Your task to perform on an android device: remove spam from my inbox in the gmail app Image 0: 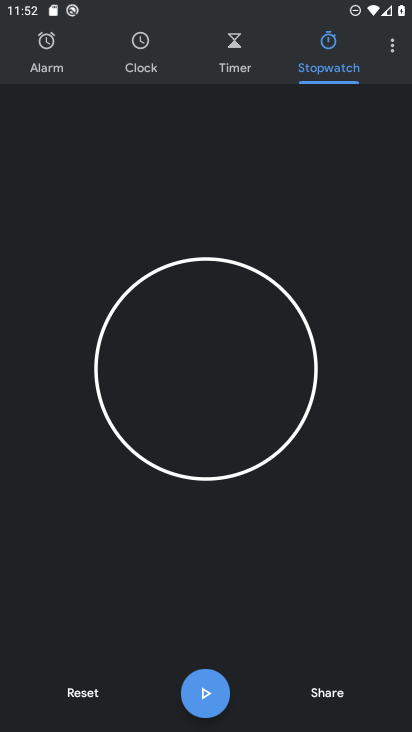
Step 0: press home button
Your task to perform on an android device: remove spam from my inbox in the gmail app Image 1: 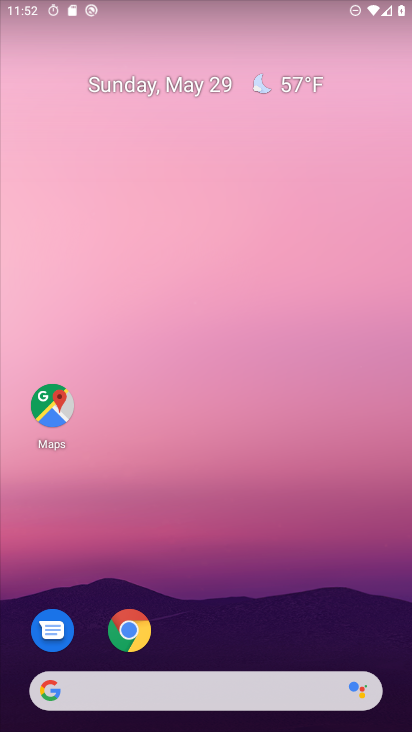
Step 1: drag from (275, 687) to (81, 1)
Your task to perform on an android device: remove spam from my inbox in the gmail app Image 2: 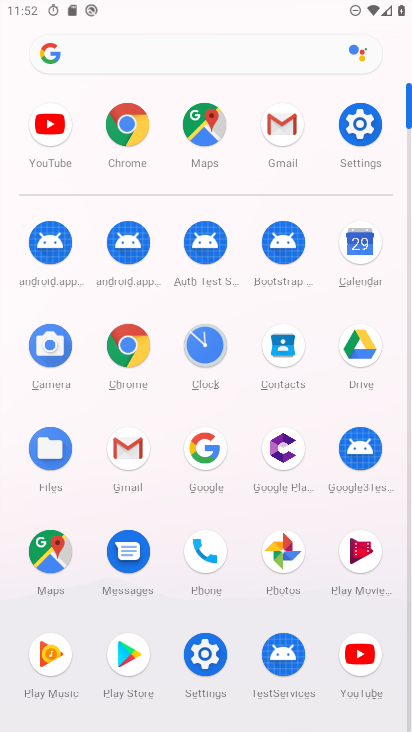
Step 2: click (128, 454)
Your task to perform on an android device: remove spam from my inbox in the gmail app Image 3: 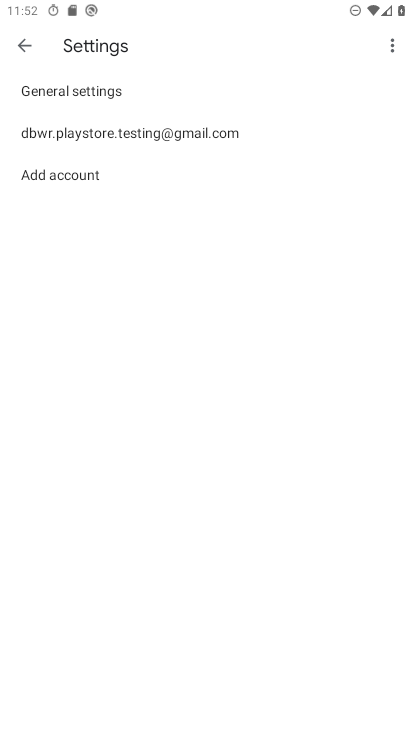
Step 3: click (120, 122)
Your task to perform on an android device: remove spam from my inbox in the gmail app Image 4: 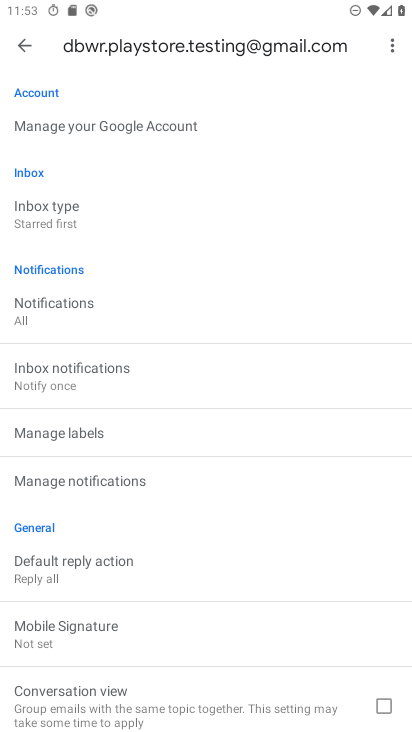
Step 4: click (25, 38)
Your task to perform on an android device: remove spam from my inbox in the gmail app Image 5: 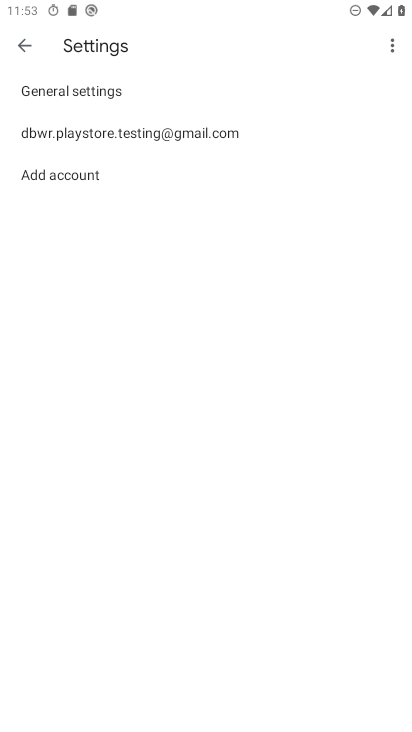
Step 5: click (25, 38)
Your task to perform on an android device: remove spam from my inbox in the gmail app Image 6: 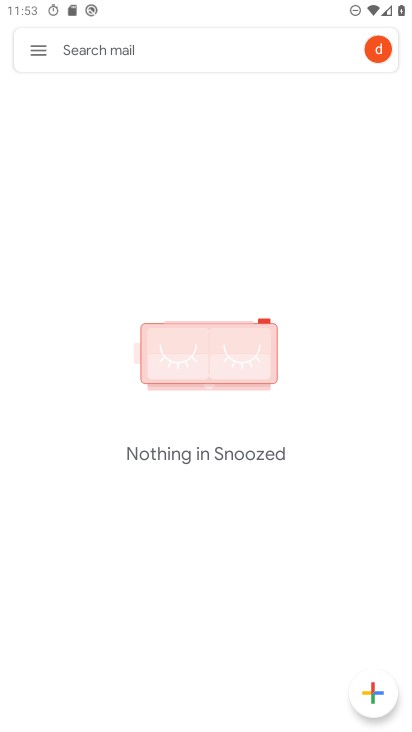
Step 6: click (39, 53)
Your task to perform on an android device: remove spam from my inbox in the gmail app Image 7: 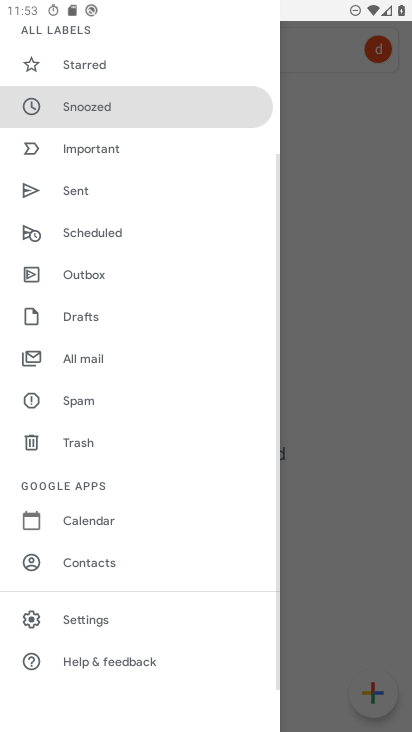
Step 7: click (95, 397)
Your task to perform on an android device: remove spam from my inbox in the gmail app Image 8: 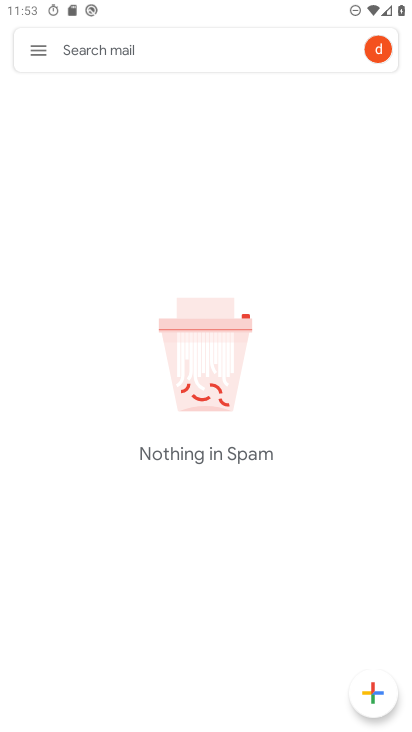
Step 8: task complete